Your task to perform on an android device: see tabs open on other devices in the chrome app Image 0: 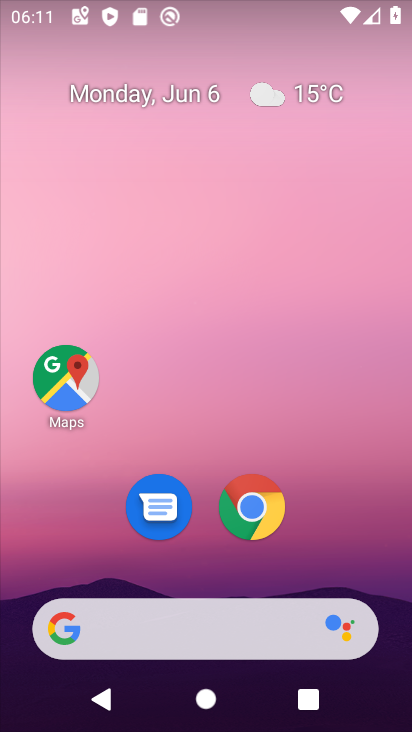
Step 0: click (249, 509)
Your task to perform on an android device: see tabs open on other devices in the chrome app Image 1: 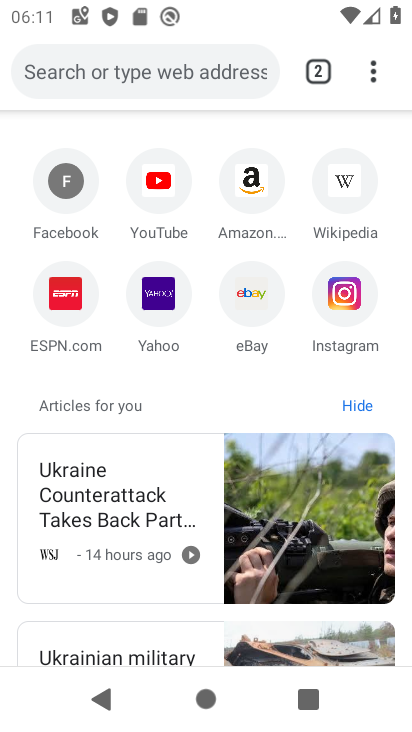
Step 1: click (376, 76)
Your task to perform on an android device: see tabs open on other devices in the chrome app Image 2: 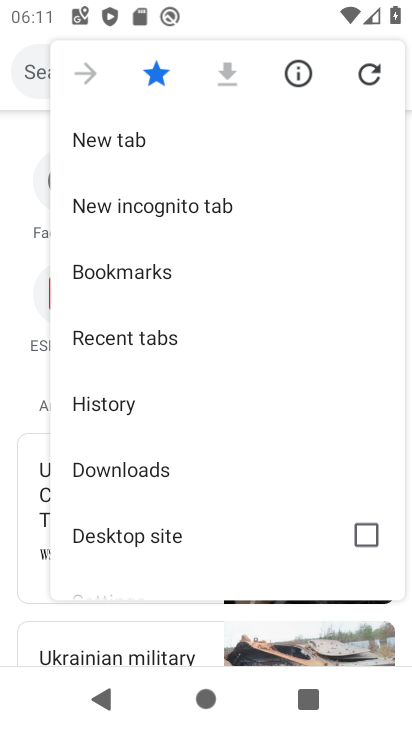
Step 2: click (173, 344)
Your task to perform on an android device: see tabs open on other devices in the chrome app Image 3: 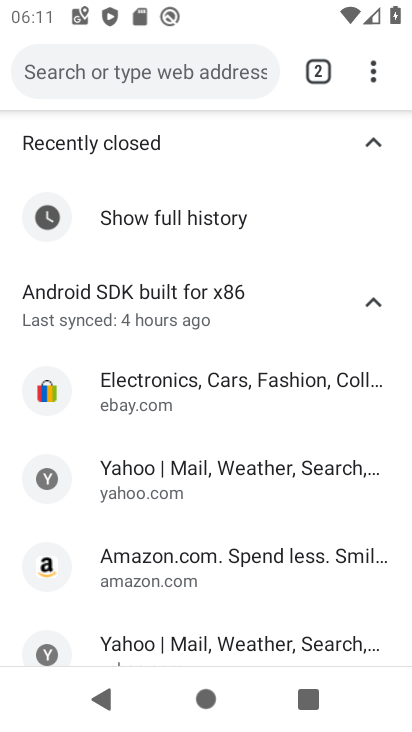
Step 3: task complete